Your task to perform on an android device: snooze an email in the gmail app Image 0: 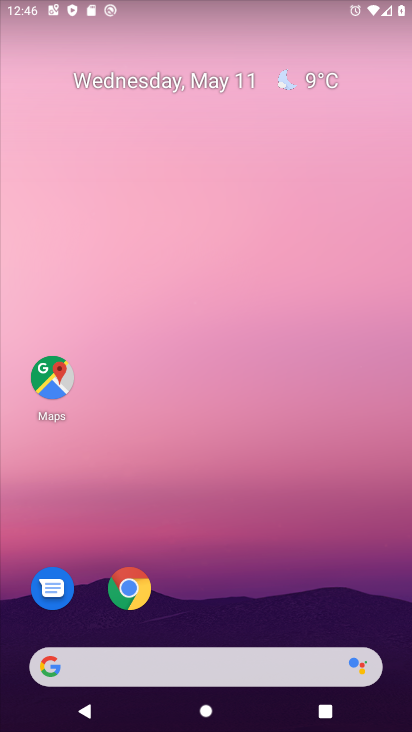
Step 0: drag from (343, 398) to (323, 55)
Your task to perform on an android device: snooze an email in the gmail app Image 1: 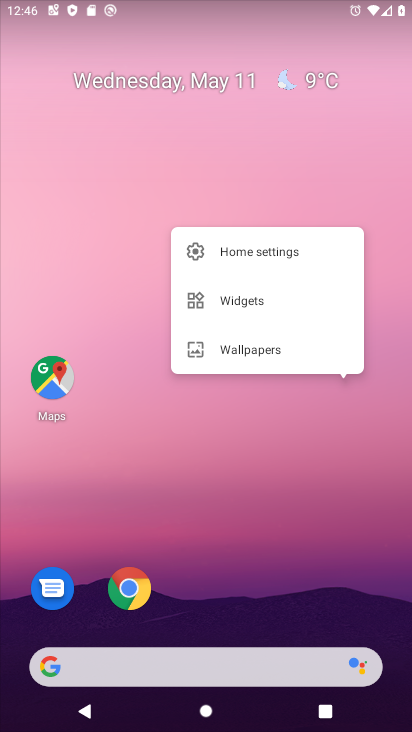
Step 1: drag from (343, 584) to (379, 99)
Your task to perform on an android device: snooze an email in the gmail app Image 2: 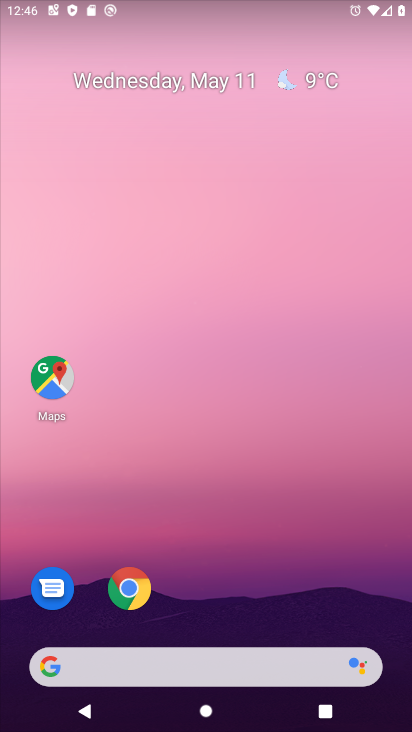
Step 2: drag from (296, 195) to (301, 72)
Your task to perform on an android device: snooze an email in the gmail app Image 3: 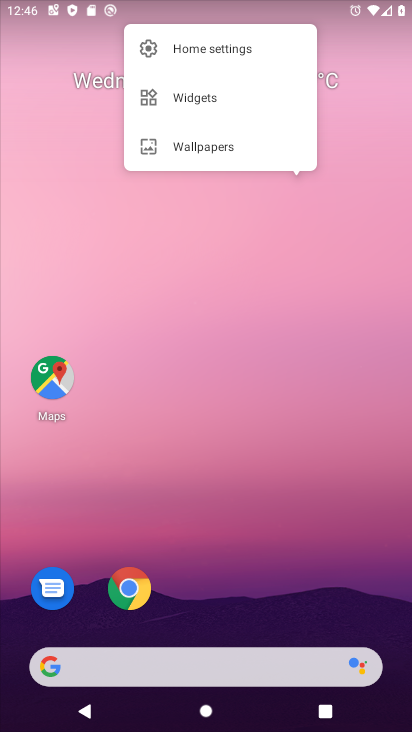
Step 3: drag from (286, 595) to (296, 126)
Your task to perform on an android device: snooze an email in the gmail app Image 4: 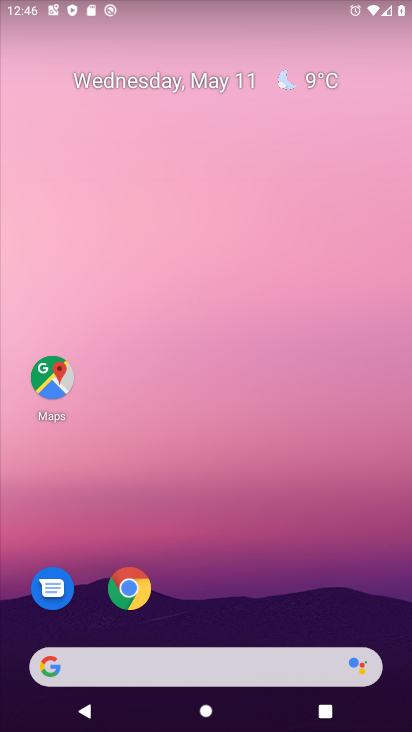
Step 4: drag from (340, 379) to (331, 66)
Your task to perform on an android device: snooze an email in the gmail app Image 5: 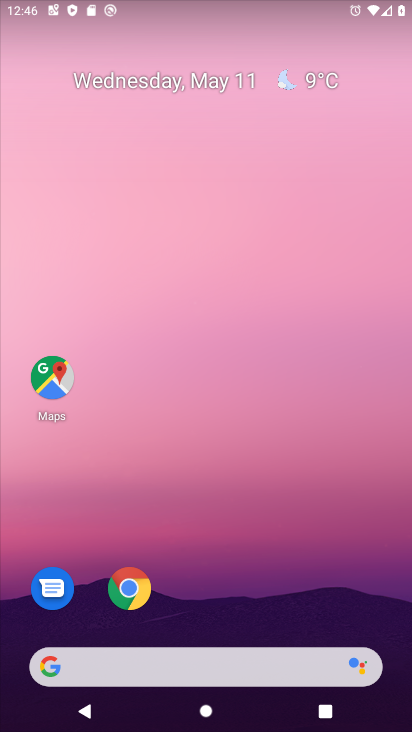
Step 5: drag from (300, 248) to (301, 55)
Your task to perform on an android device: snooze an email in the gmail app Image 6: 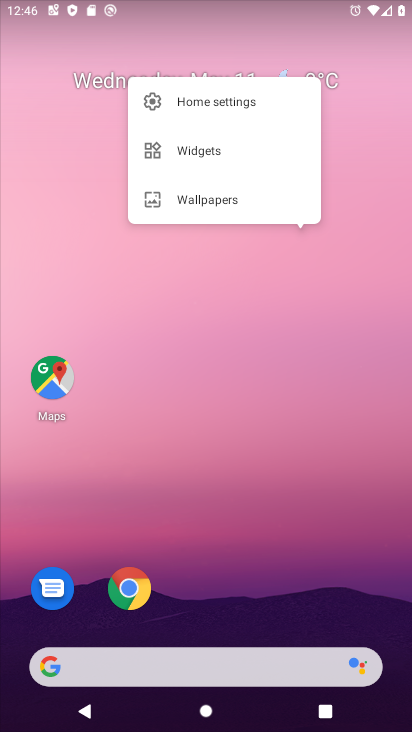
Step 6: drag from (289, 584) to (287, 67)
Your task to perform on an android device: snooze an email in the gmail app Image 7: 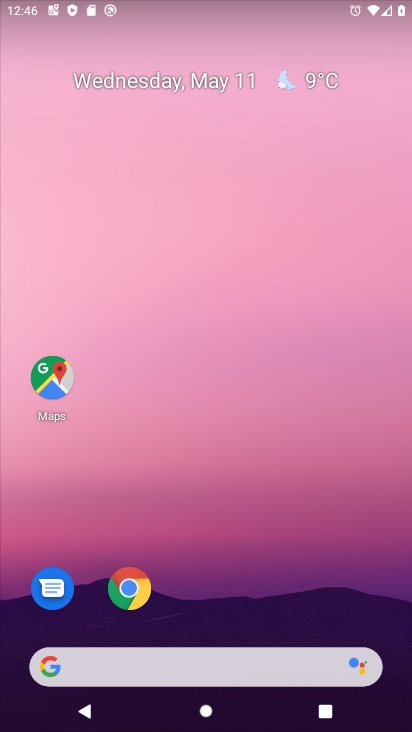
Step 7: drag from (378, 399) to (377, 62)
Your task to perform on an android device: snooze an email in the gmail app Image 8: 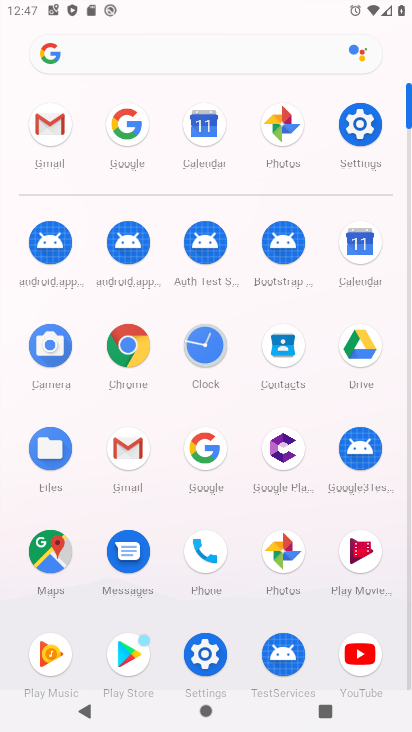
Step 8: click (131, 457)
Your task to perform on an android device: snooze an email in the gmail app Image 9: 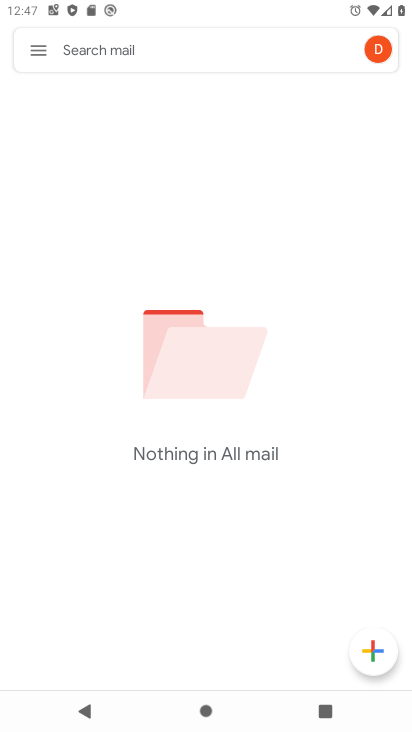
Step 9: task complete